Your task to perform on an android device: toggle data saver in the chrome app Image 0: 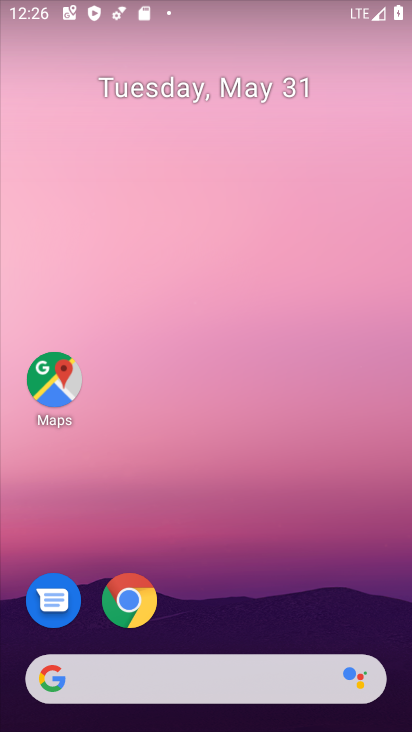
Step 0: click (123, 602)
Your task to perform on an android device: toggle data saver in the chrome app Image 1: 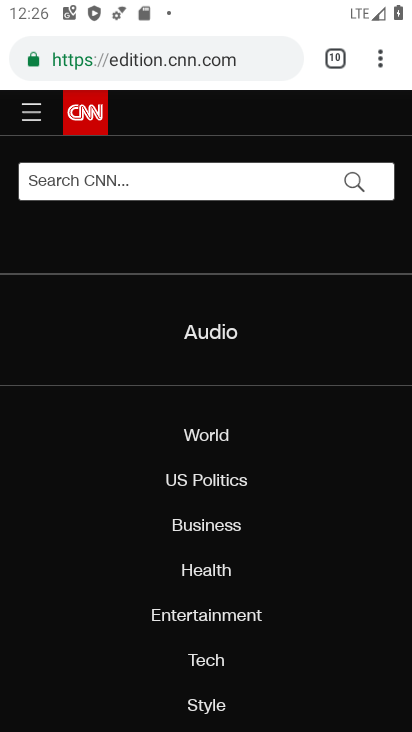
Step 1: click (381, 66)
Your task to perform on an android device: toggle data saver in the chrome app Image 2: 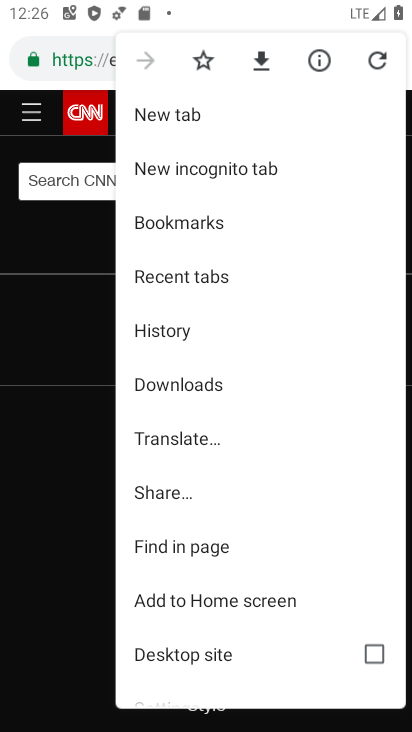
Step 2: drag from (202, 653) to (196, 619)
Your task to perform on an android device: toggle data saver in the chrome app Image 3: 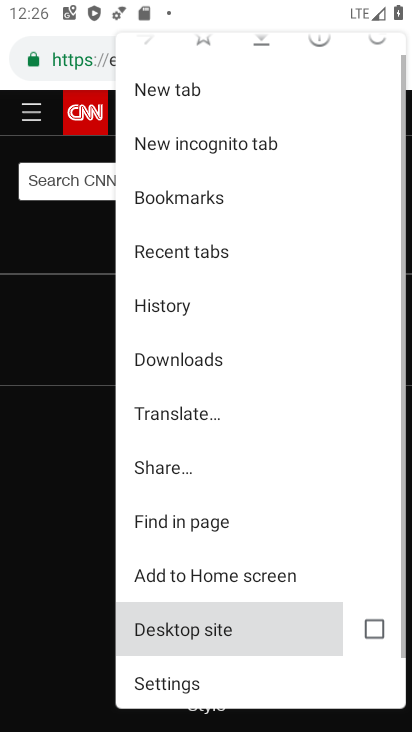
Step 3: drag from (183, 455) to (183, 298)
Your task to perform on an android device: toggle data saver in the chrome app Image 4: 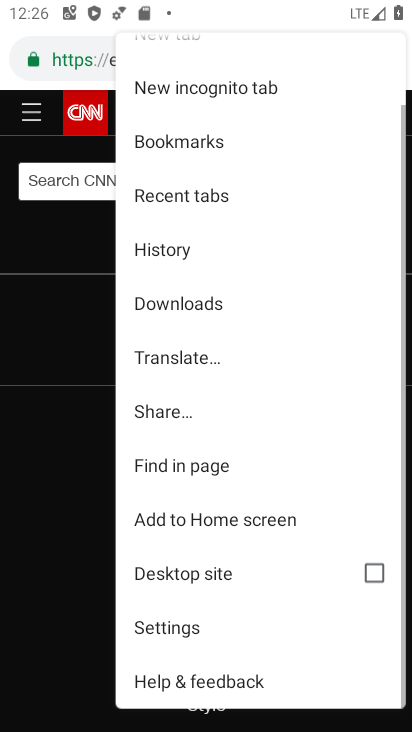
Step 4: click (178, 623)
Your task to perform on an android device: toggle data saver in the chrome app Image 5: 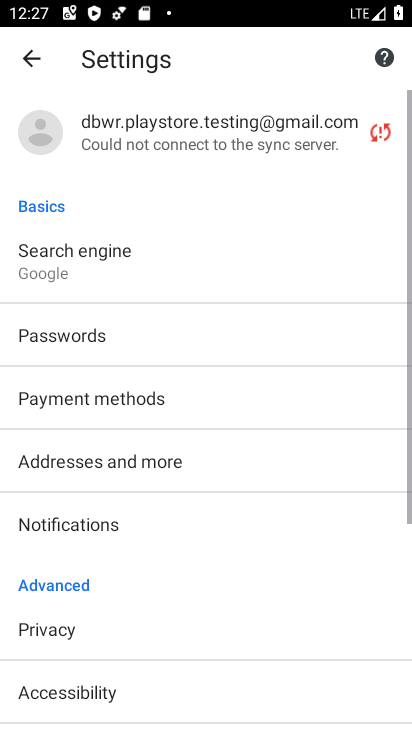
Step 5: drag from (158, 676) to (150, 619)
Your task to perform on an android device: toggle data saver in the chrome app Image 6: 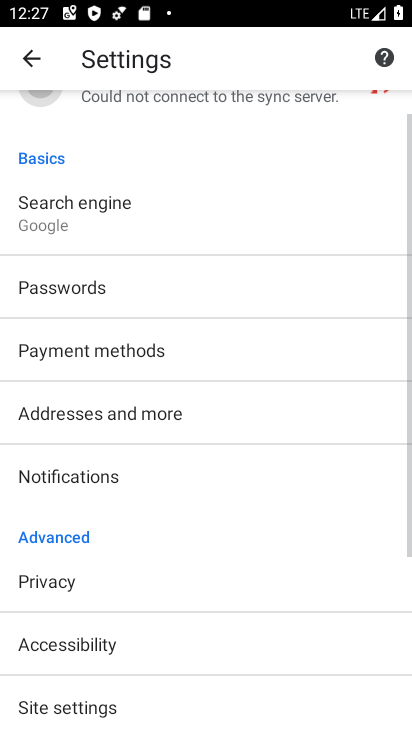
Step 6: click (136, 351)
Your task to perform on an android device: toggle data saver in the chrome app Image 7: 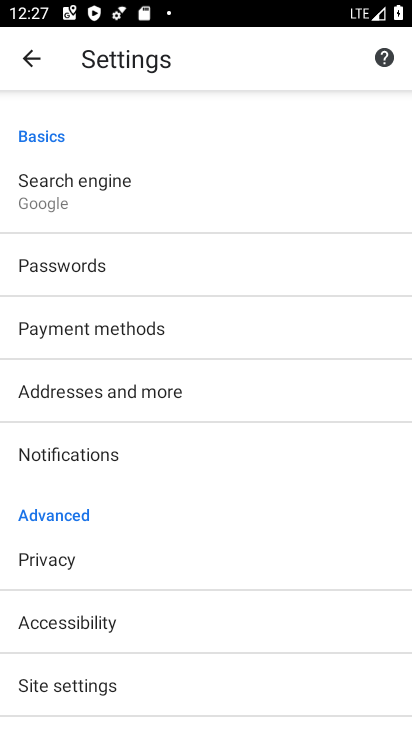
Step 7: click (100, 682)
Your task to perform on an android device: toggle data saver in the chrome app Image 8: 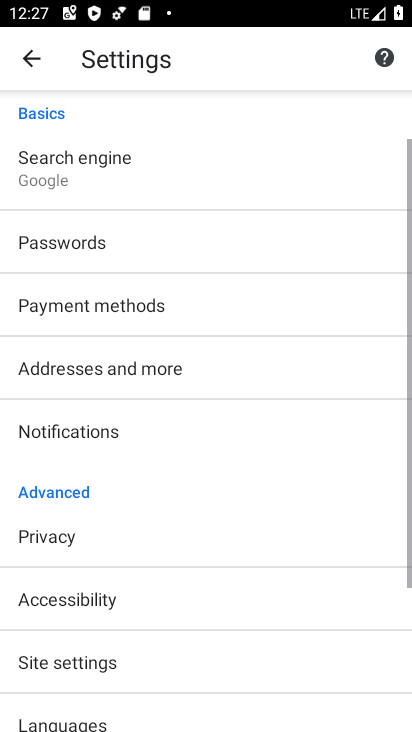
Step 8: click (88, 463)
Your task to perform on an android device: toggle data saver in the chrome app Image 9: 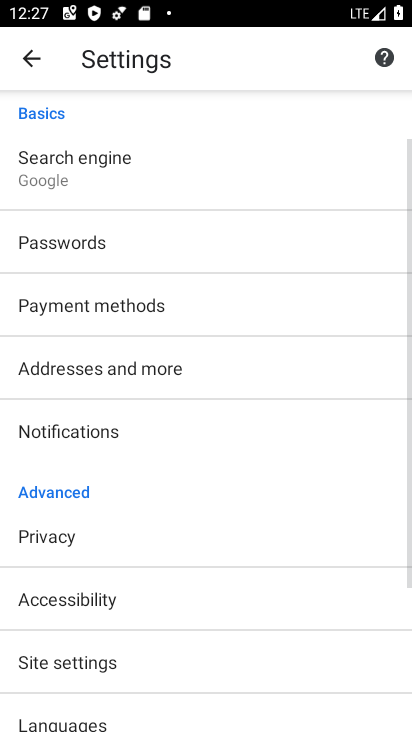
Step 9: drag from (88, 341) to (88, 219)
Your task to perform on an android device: toggle data saver in the chrome app Image 10: 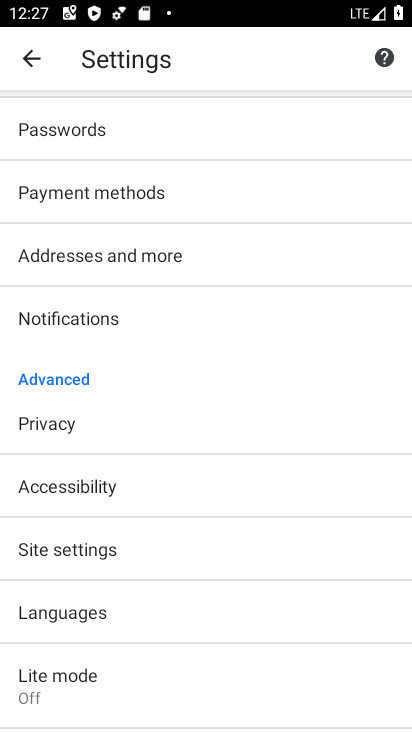
Step 10: click (95, 680)
Your task to perform on an android device: toggle data saver in the chrome app Image 11: 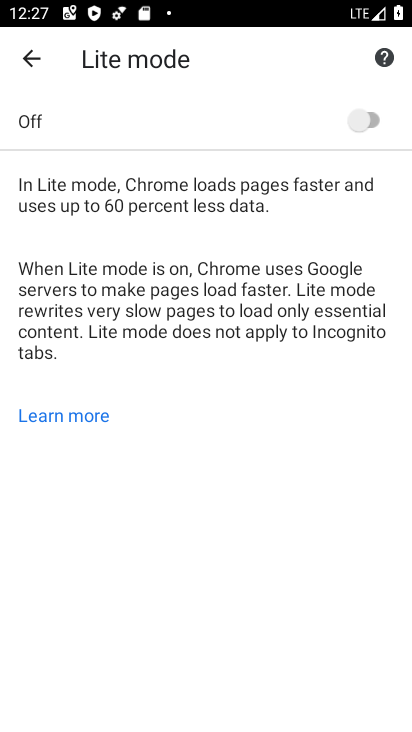
Step 11: click (375, 116)
Your task to perform on an android device: toggle data saver in the chrome app Image 12: 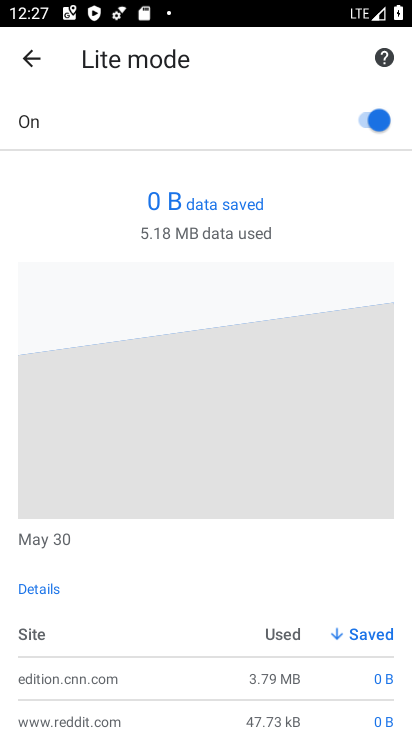
Step 12: task complete